Your task to perform on an android device: install app "Flipkart Online Shopping App" Image 0: 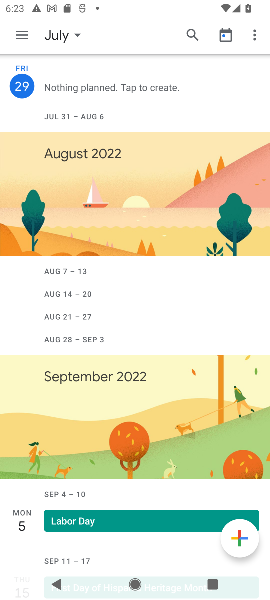
Step 0: press home button
Your task to perform on an android device: install app "Flipkart Online Shopping App" Image 1: 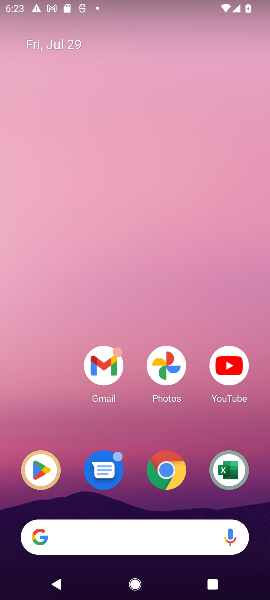
Step 1: drag from (239, 439) to (188, 1)
Your task to perform on an android device: install app "Flipkart Online Shopping App" Image 2: 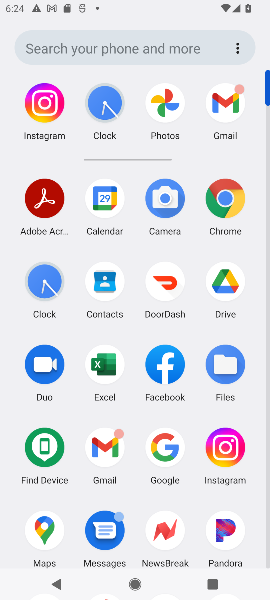
Step 2: drag from (135, 488) to (141, 268)
Your task to perform on an android device: install app "Flipkart Online Shopping App" Image 3: 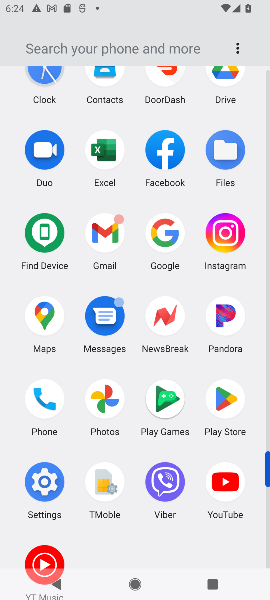
Step 3: click (231, 405)
Your task to perform on an android device: install app "Flipkart Online Shopping App" Image 4: 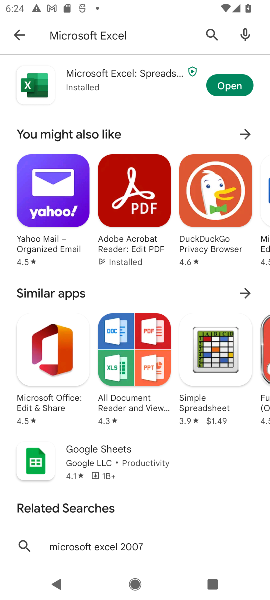
Step 4: click (95, 34)
Your task to perform on an android device: install app "Flipkart Online Shopping App" Image 5: 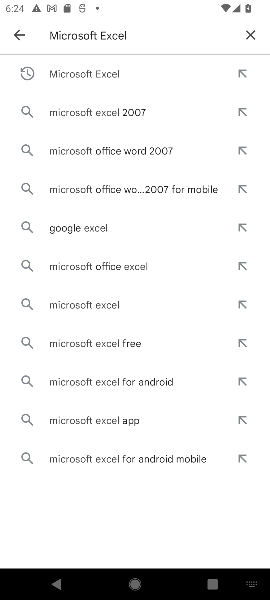
Step 5: click (253, 32)
Your task to perform on an android device: install app "Flipkart Online Shopping App" Image 6: 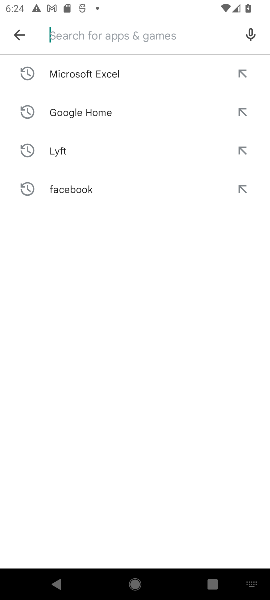
Step 6: type "Flipkart Online Shopping App"
Your task to perform on an android device: install app "Flipkart Online Shopping App" Image 7: 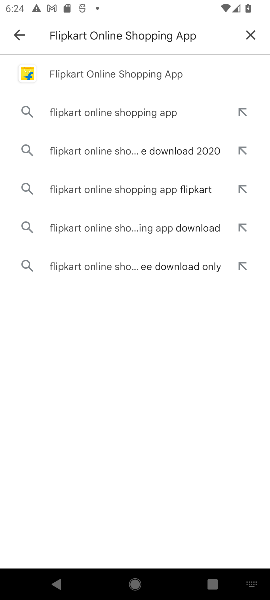
Step 7: click (159, 69)
Your task to perform on an android device: install app "Flipkart Online Shopping App" Image 8: 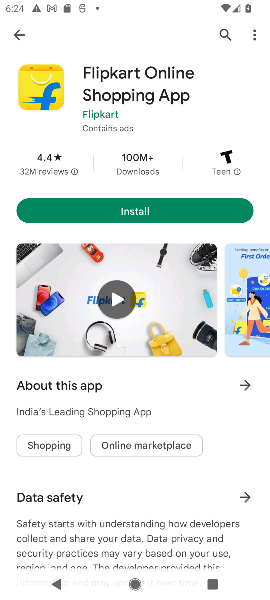
Step 8: click (171, 211)
Your task to perform on an android device: install app "Flipkart Online Shopping App" Image 9: 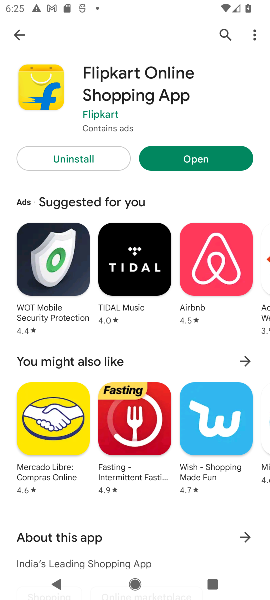
Step 9: task complete